Your task to perform on an android device: Show me popular games on the Play Store Image 0: 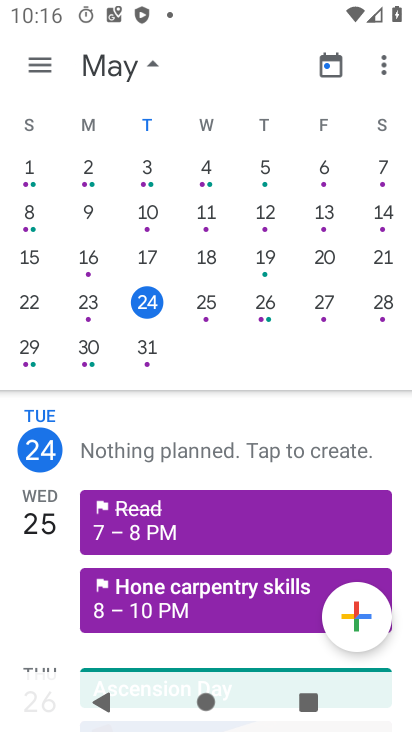
Step 0: press home button
Your task to perform on an android device: Show me popular games on the Play Store Image 1: 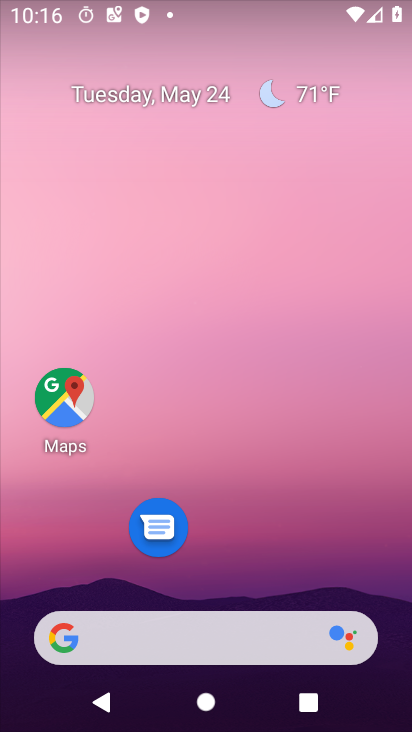
Step 1: drag from (263, 582) to (260, 111)
Your task to perform on an android device: Show me popular games on the Play Store Image 2: 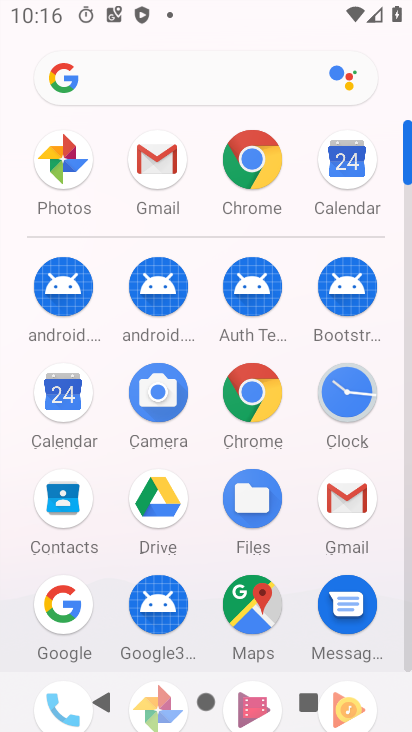
Step 2: drag from (110, 615) to (154, 166)
Your task to perform on an android device: Show me popular games on the Play Store Image 3: 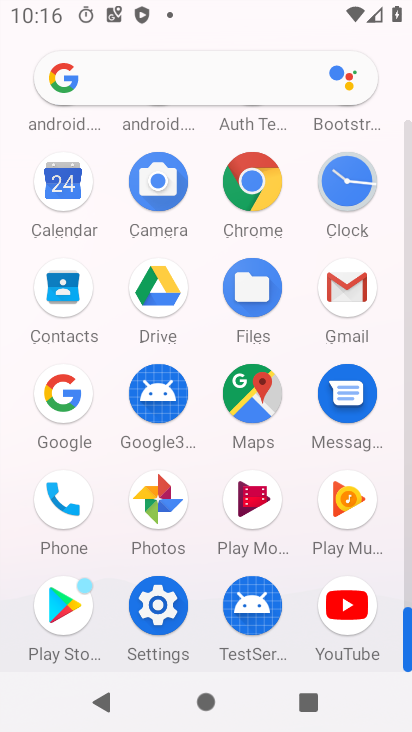
Step 3: click (62, 609)
Your task to perform on an android device: Show me popular games on the Play Store Image 4: 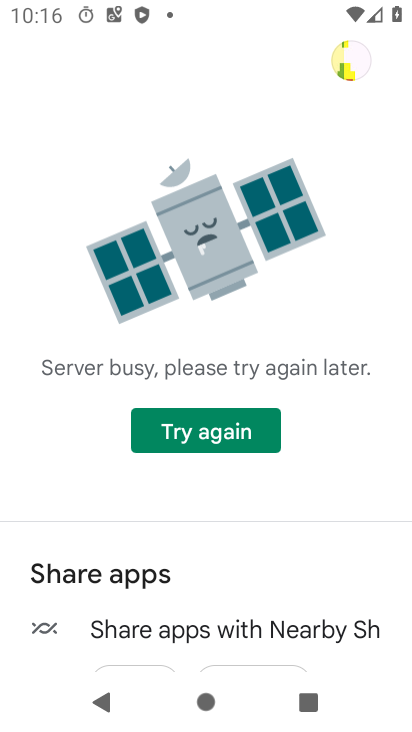
Step 4: click (219, 445)
Your task to perform on an android device: Show me popular games on the Play Store Image 5: 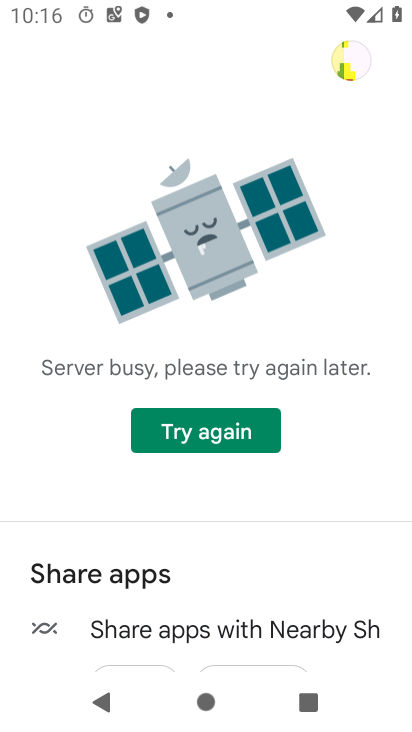
Step 5: task complete